Your task to perform on an android device: add a contact Image 0: 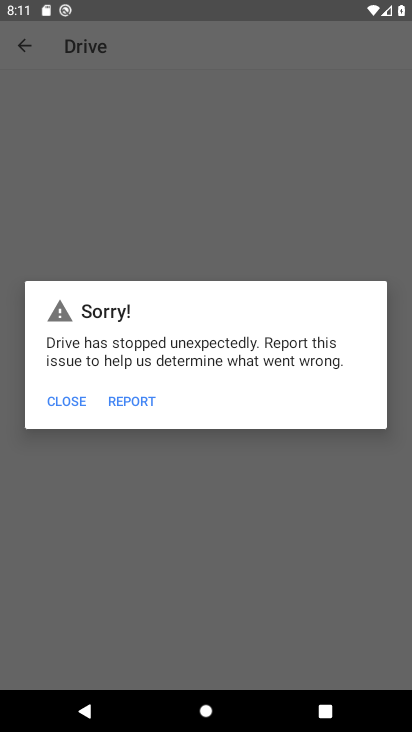
Step 0: press home button
Your task to perform on an android device: add a contact Image 1: 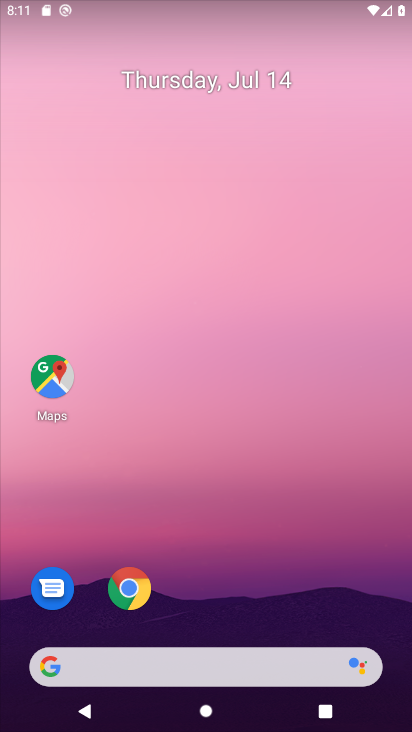
Step 1: drag from (325, 592) to (361, 81)
Your task to perform on an android device: add a contact Image 2: 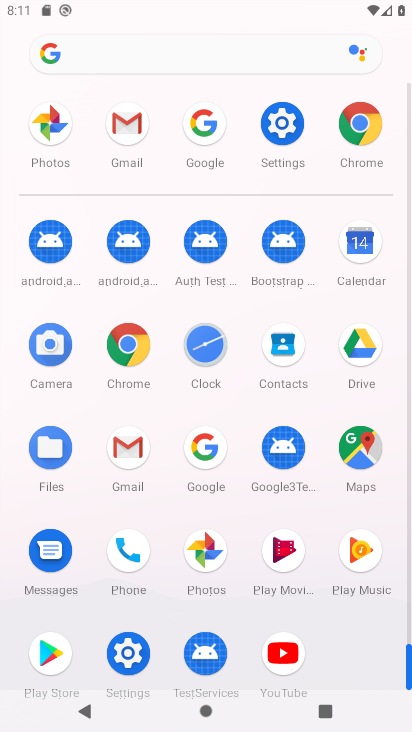
Step 2: click (285, 343)
Your task to perform on an android device: add a contact Image 3: 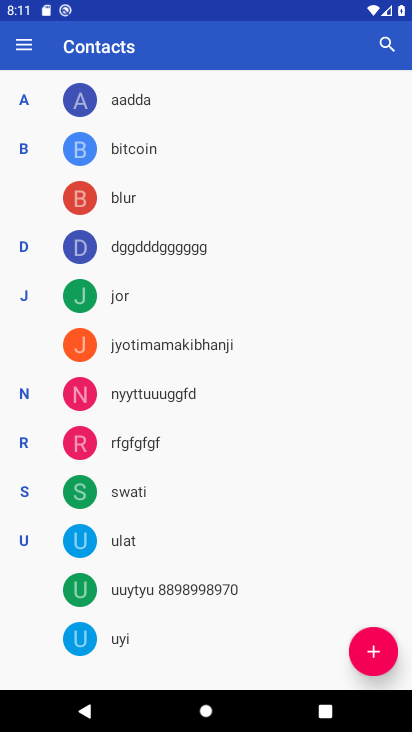
Step 3: click (379, 655)
Your task to perform on an android device: add a contact Image 4: 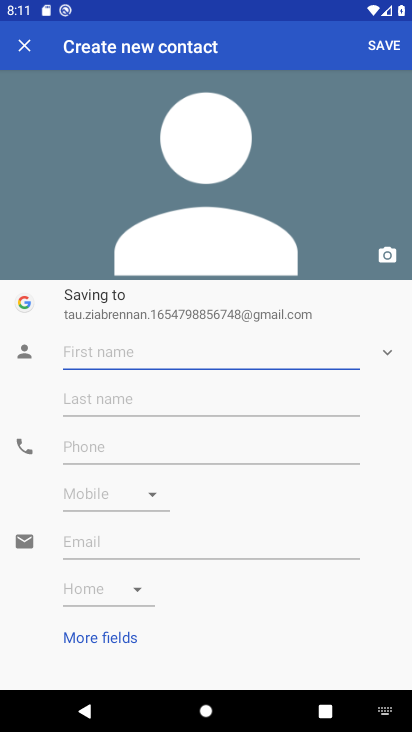
Step 4: type "fav"
Your task to perform on an android device: add a contact Image 5: 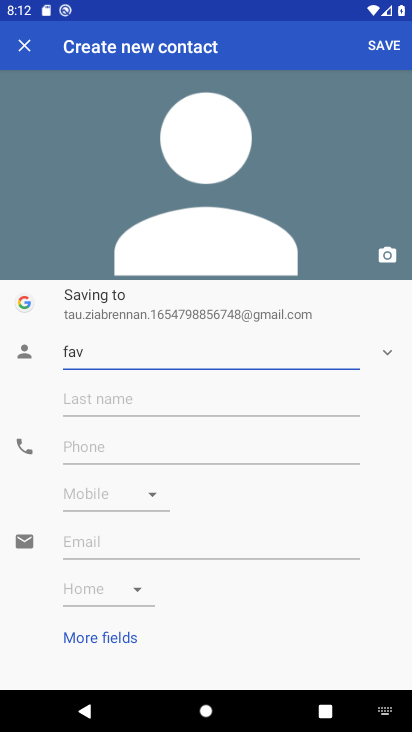
Step 5: click (336, 434)
Your task to perform on an android device: add a contact Image 6: 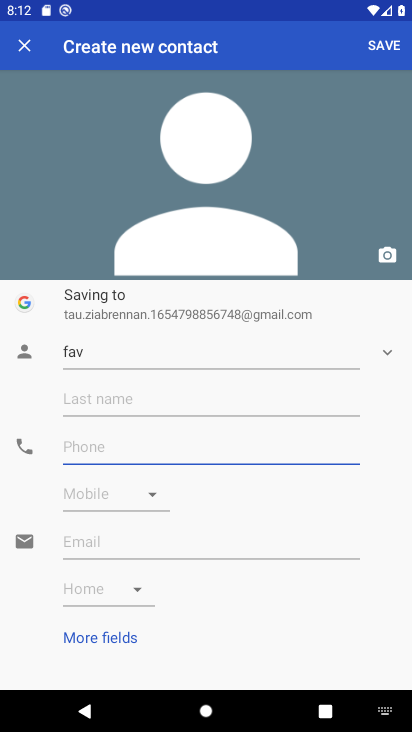
Step 6: type "1234567890"
Your task to perform on an android device: add a contact Image 7: 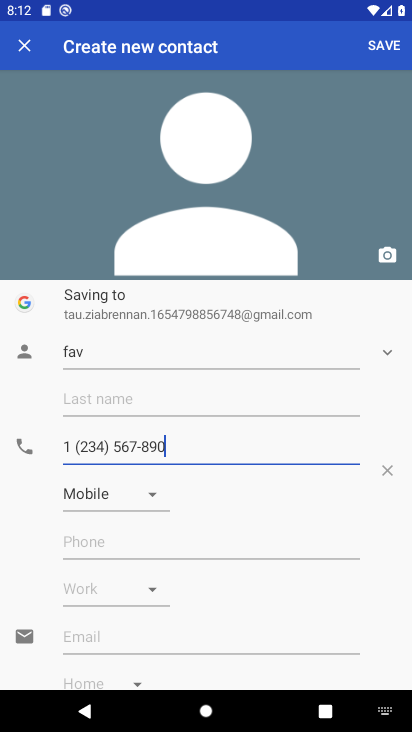
Step 7: click (390, 44)
Your task to perform on an android device: add a contact Image 8: 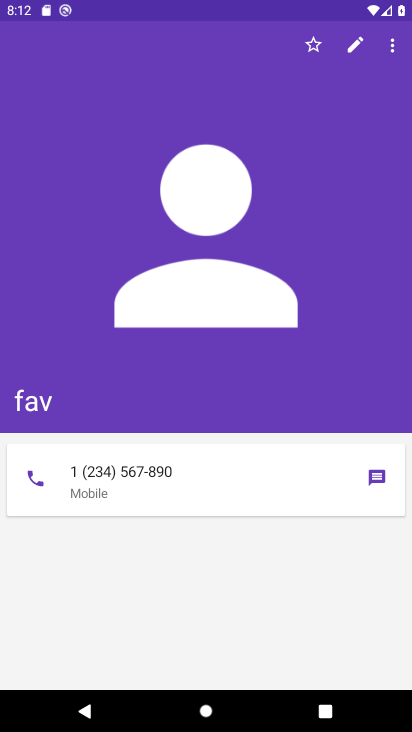
Step 8: task complete